Your task to perform on an android device: install app "YouTube Kids" Image 0: 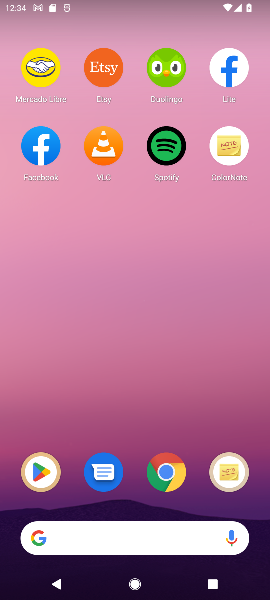
Step 0: click (32, 479)
Your task to perform on an android device: install app "YouTube Kids" Image 1: 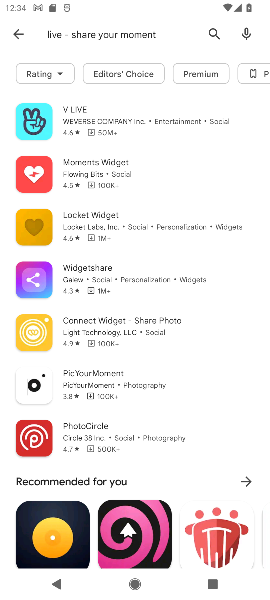
Step 1: click (218, 30)
Your task to perform on an android device: install app "YouTube Kids" Image 2: 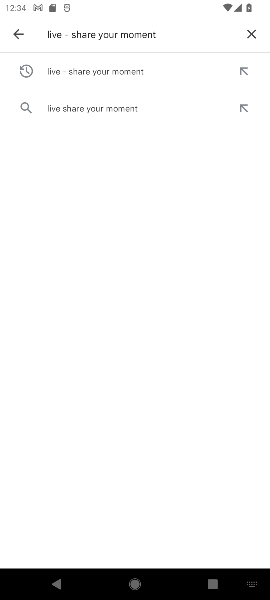
Step 2: click (252, 34)
Your task to perform on an android device: install app "YouTube Kids" Image 3: 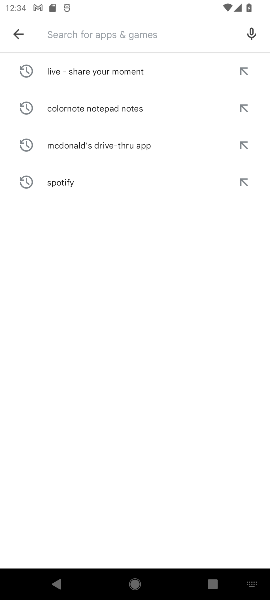
Step 3: type "youtube kids"
Your task to perform on an android device: install app "YouTube Kids" Image 4: 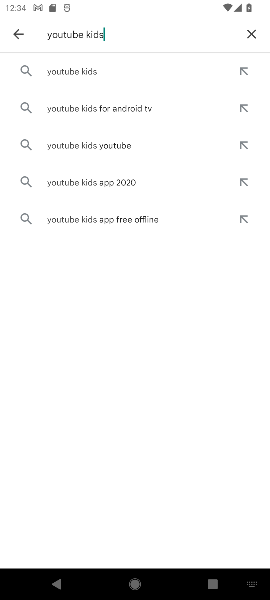
Step 4: click (153, 61)
Your task to perform on an android device: install app "YouTube Kids" Image 5: 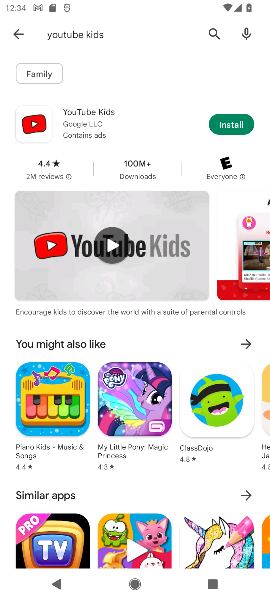
Step 5: click (87, 128)
Your task to perform on an android device: install app "YouTube Kids" Image 6: 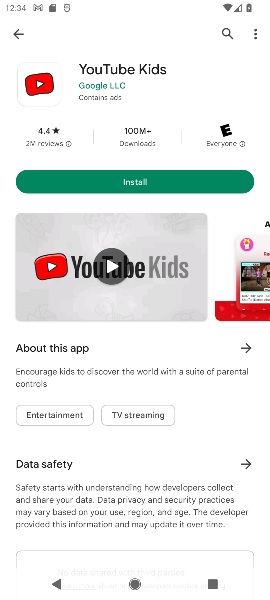
Step 6: click (78, 174)
Your task to perform on an android device: install app "YouTube Kids" Image 7: 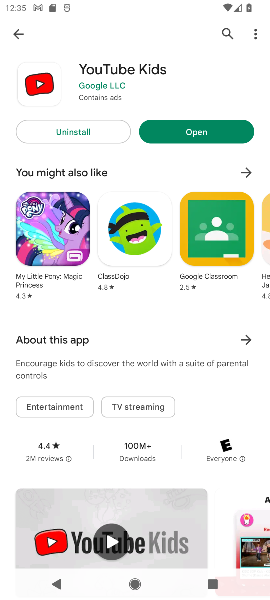
Step 7: task complete